Your task to perform on an android device: Find coffee shops on Maps Image 0: 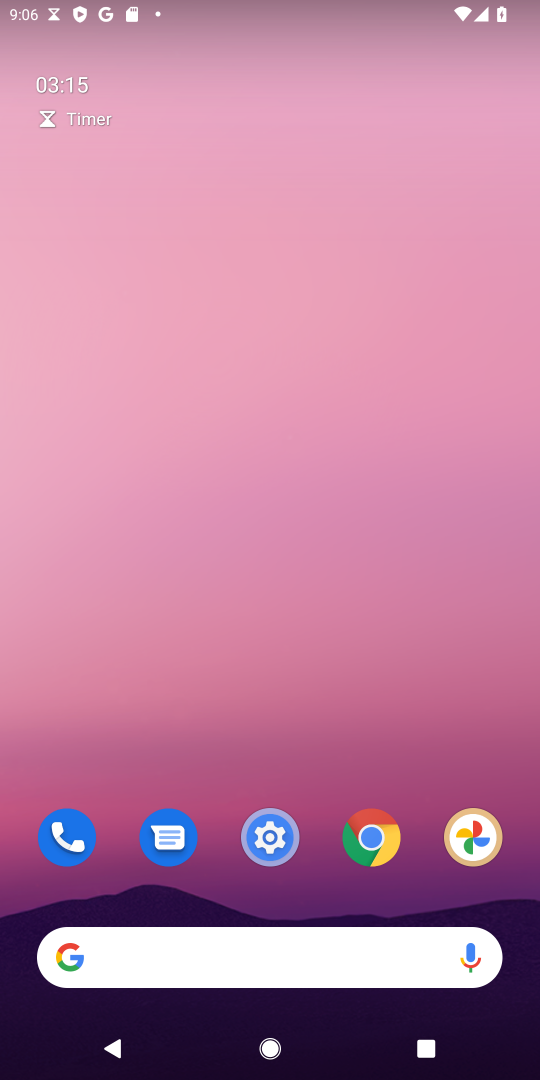
Step 0: drag from (321, 851) to (287, 182)
Your task to perform on an android device: Find coffee shops on Maps Image 1: 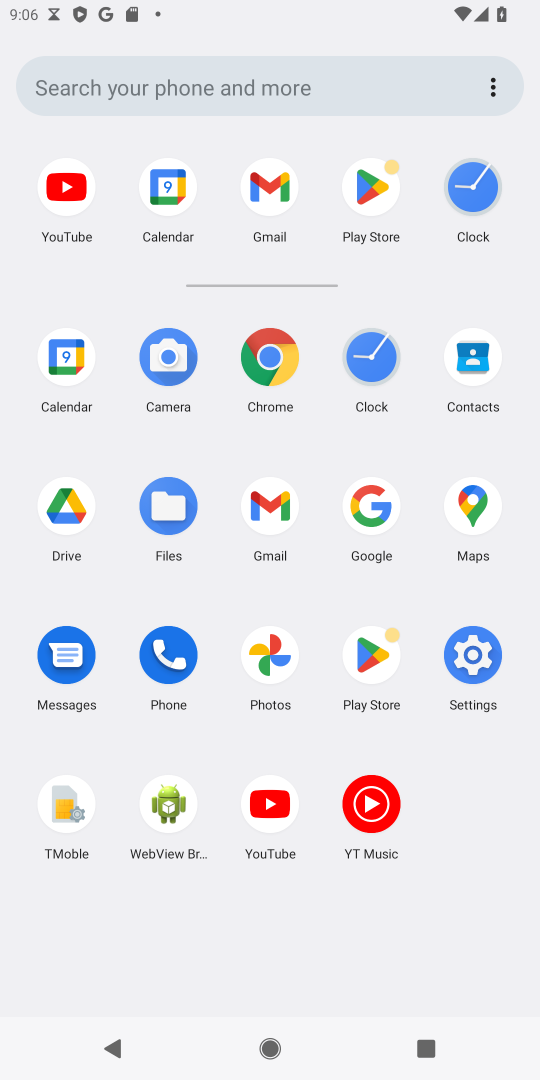
Step 1: click (472, 500)
Your task to perform on an android device: Find coffee shops on Maps Image 2: 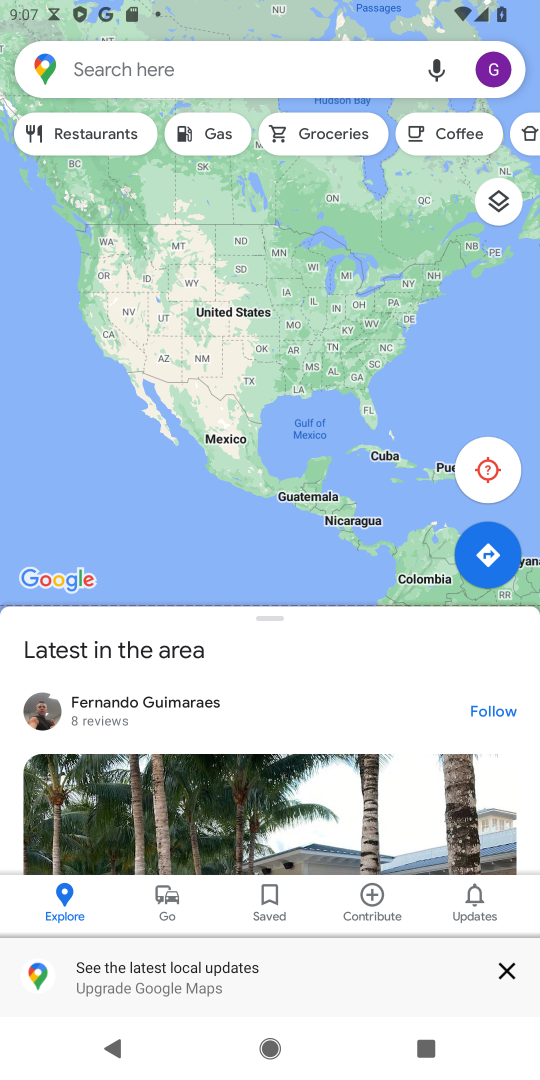
Step 2: click (260, 68)
Your task to perform on an android device: Find coffee shops on Maps Image 3: 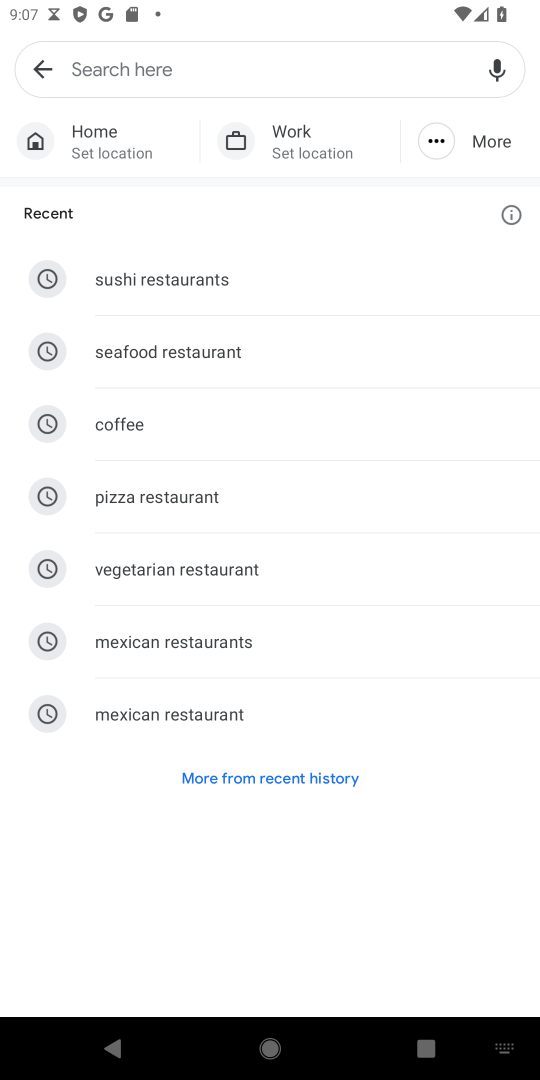
Step 3: type "coffee shops"
Your task to perform on an android device: Find coffee shops on Maps Image 4: 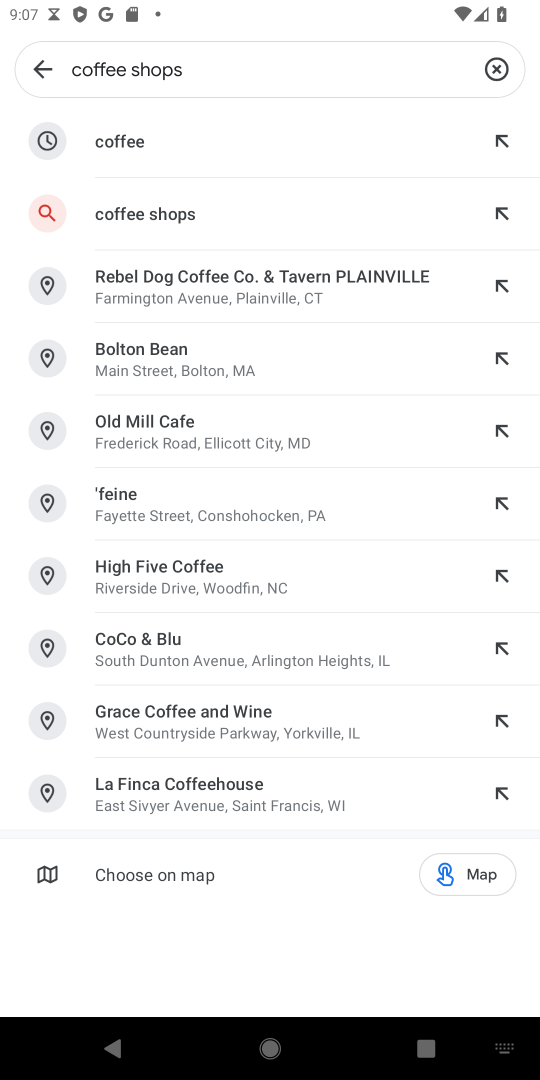
Step 4: click (171, 213)
Your task to perform on an android device: Find coffee shops on Maps Image 5: 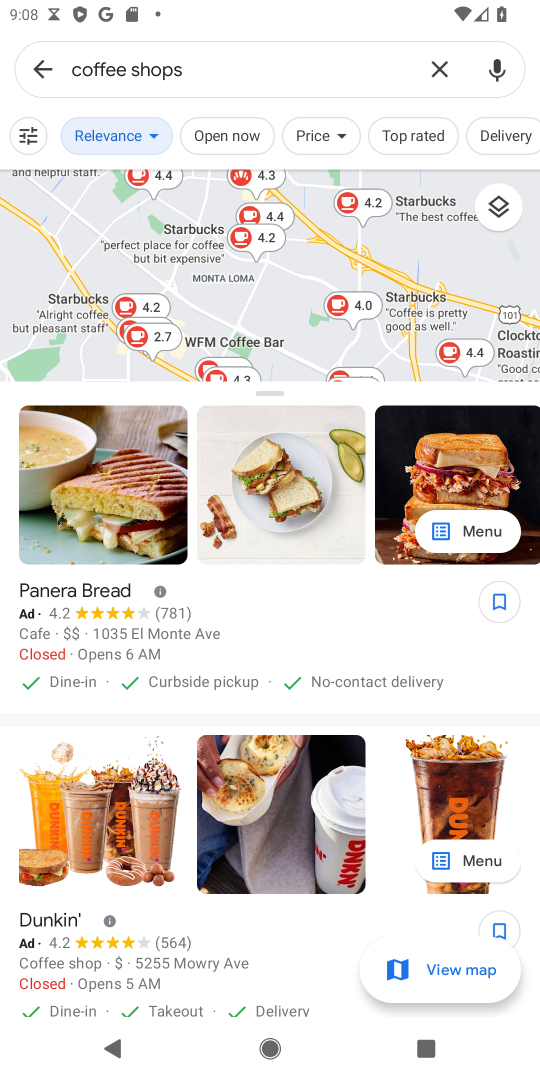
Step 5: task complete